Your task to perform on an android device: Go to notification settings Image 0: 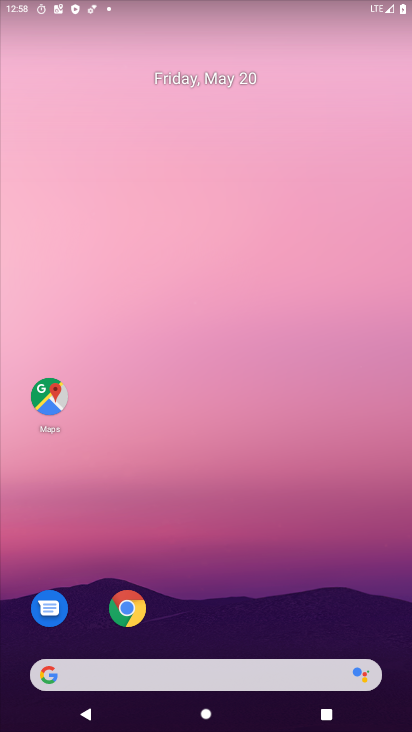
Step 0: drag from (396, 586) to (355, 99)
Your task to perform on an android device: Go to notification settings Image 1: 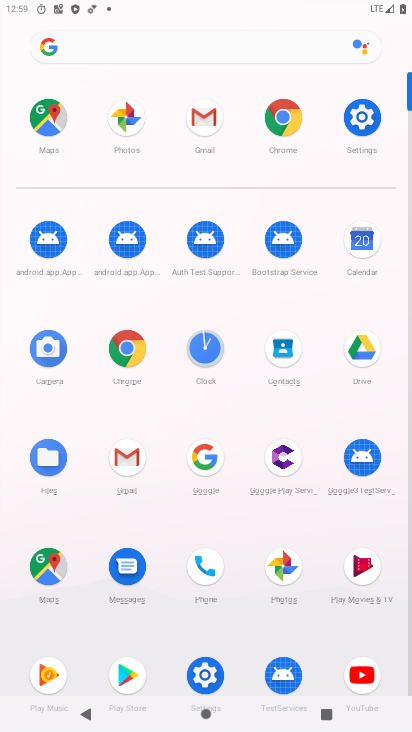
Step 1: click (210, 684)
Your task to perform on an android device: Go to notification settings Image 2: 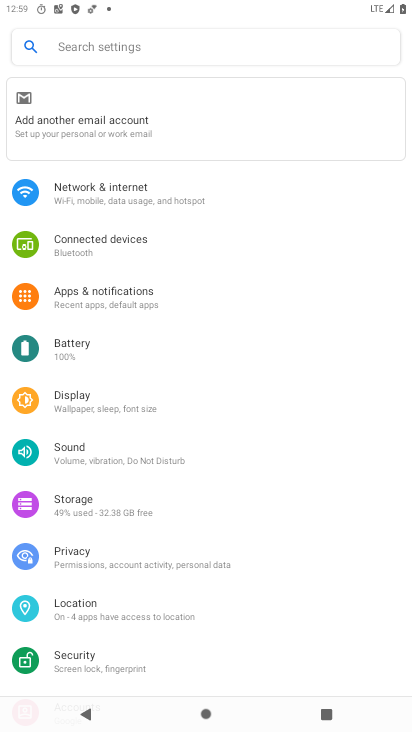
Step 2: click (145, 291)
Your task to perform on an android device: Go to notification settings Image 3: 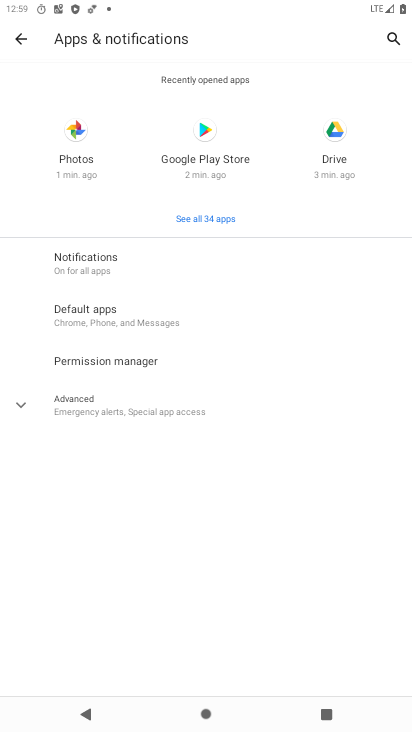
Step 3: click (119, 256)
Your task to perform on an android device: Go to notification settings Image 4: 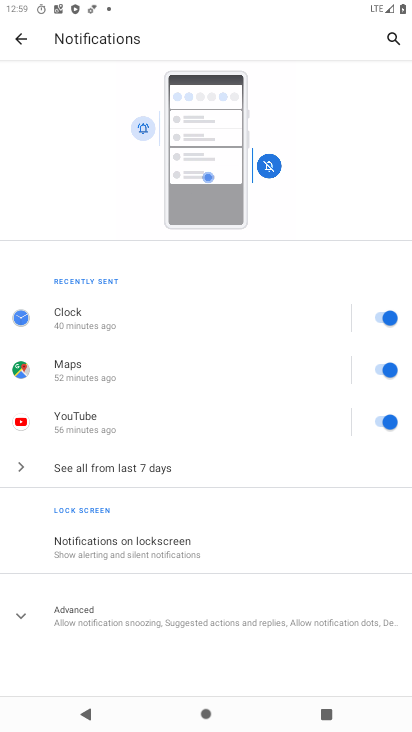
Step 4: task complete